Your task to perform on an android device: Open ESPN.com Image 0: 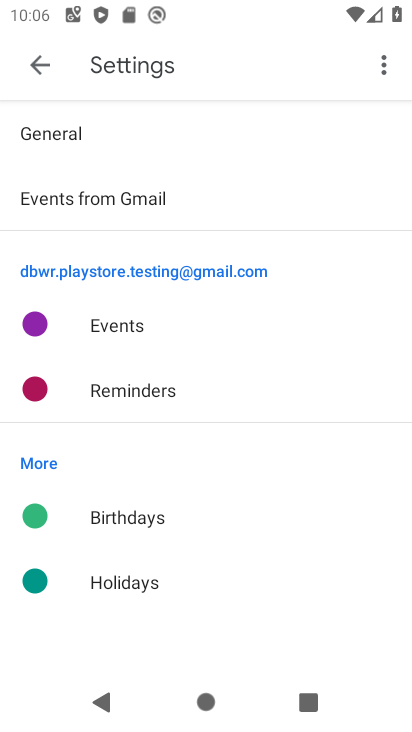
Step 0: press home button
Your task to perform on an android device: Open ESPN.com Image 1: 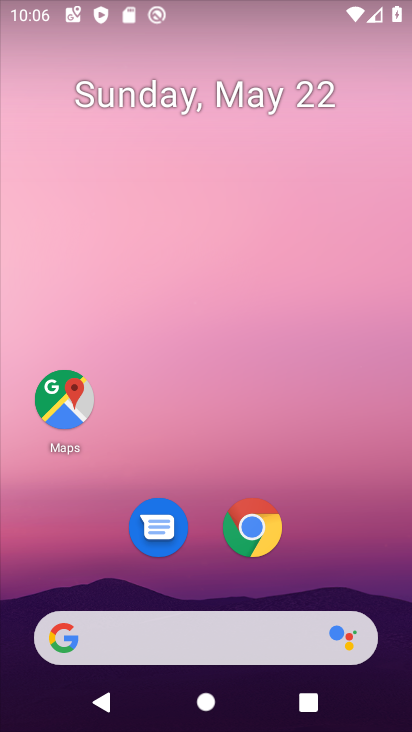
Step 1: drag from (349, 542) to (313, 74)
Your task to perform on an android device: Open ESPN.com Image 2: 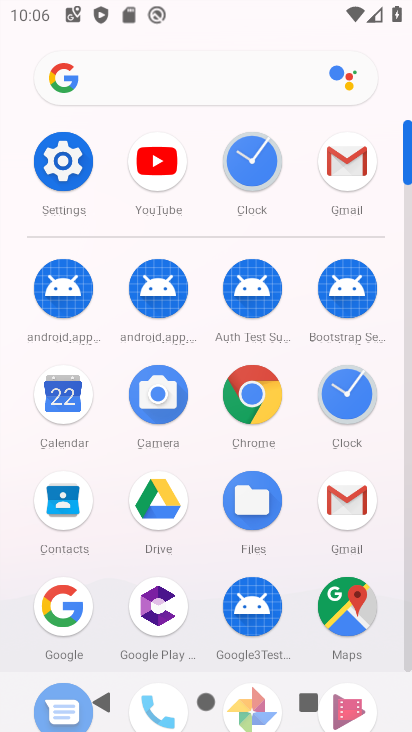
Step 2: click (409, 627)
Your task to perform on an android device: Open ESPN.com Image 3: 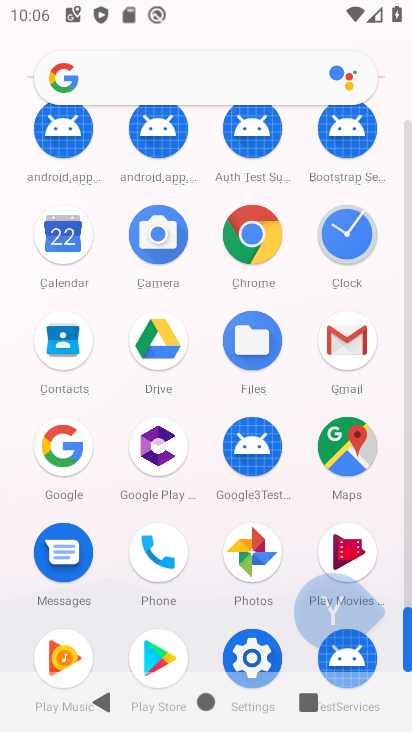
Step 3: click (409, 627)
Your task to perform on an android device: Open ESPN.com Image 4: 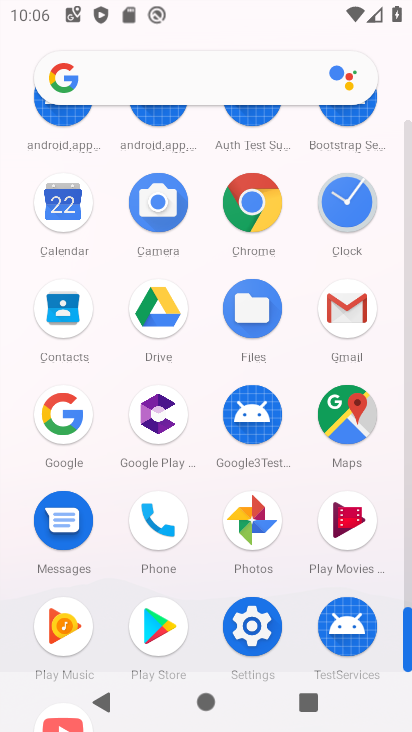
Step 4: click (409, 627)
Your task to perform on an android device: Open ESPN.com Image 5: 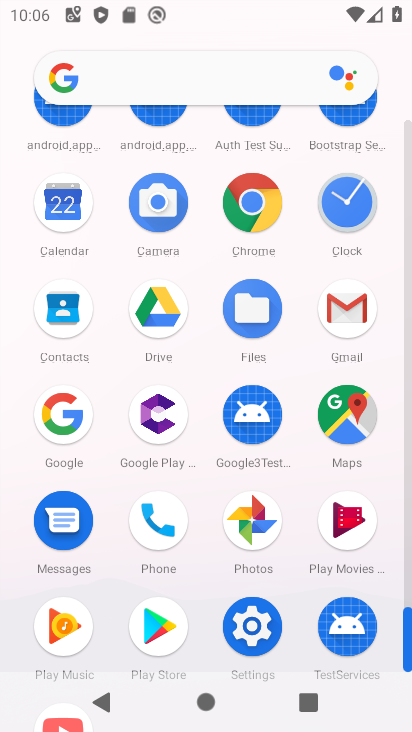
Step 5: click (409, 627)
Your task to perform on an android device: Open ESPN.com Image 6: 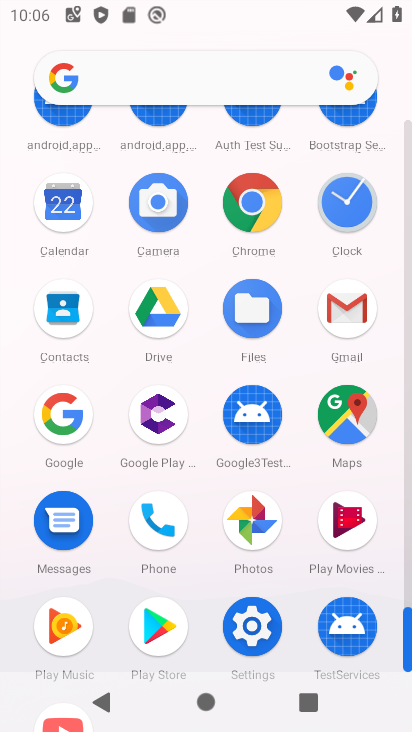
Step 6: click (406, 462)
Your task to perform on an android device: Open ESPN.com Image 7: 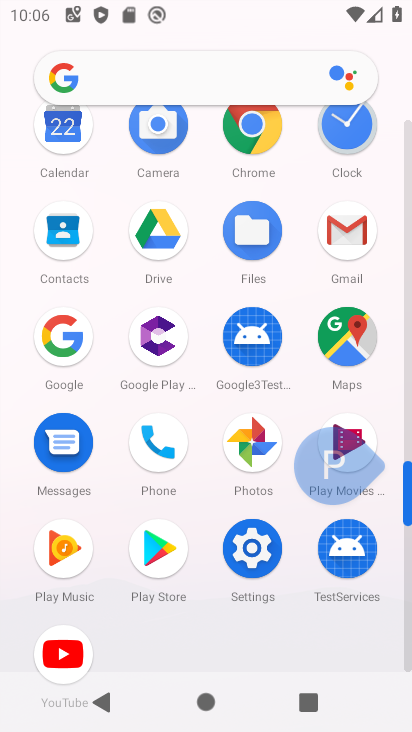
Step 7: click (406, 462)
Your task to perform on an android device: Open ESPN.com Image 8: 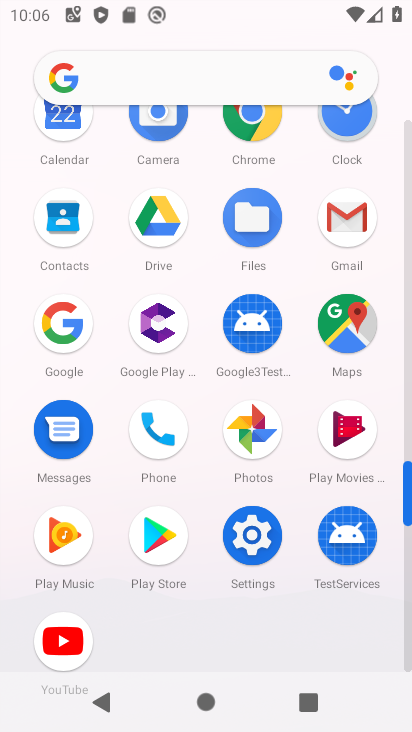
Step 8: click (407, 405)
Your task to perform on an android device: Open ESPN.com Image 9: 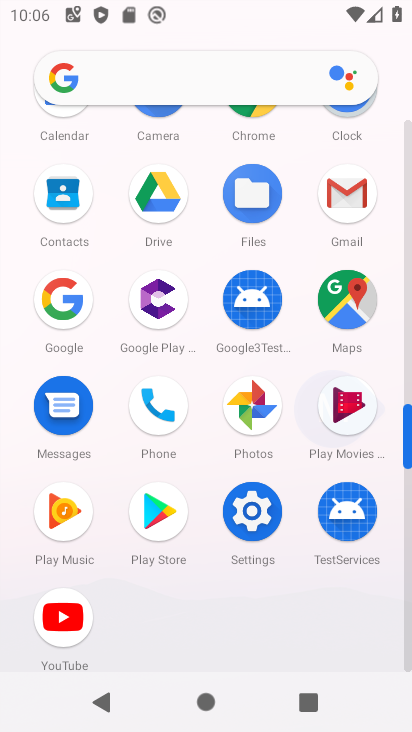
Step 9: click (407, 405)
Your task to perform on an android device: Open ESPN.com Image 10: 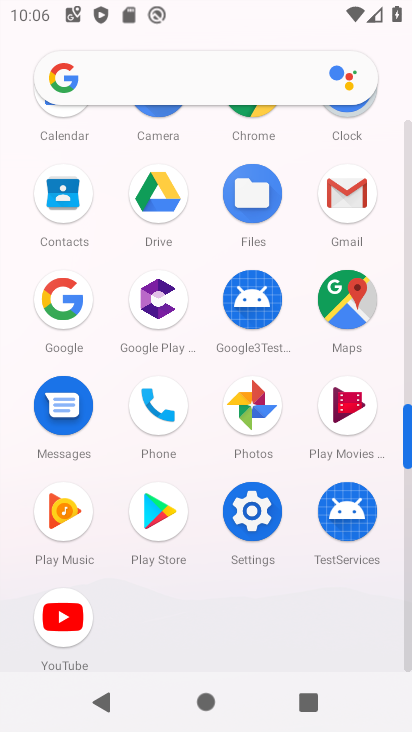
Step 10: click (402, 236)
Your task to perform on an android device: Open ESPN.com Image 11: 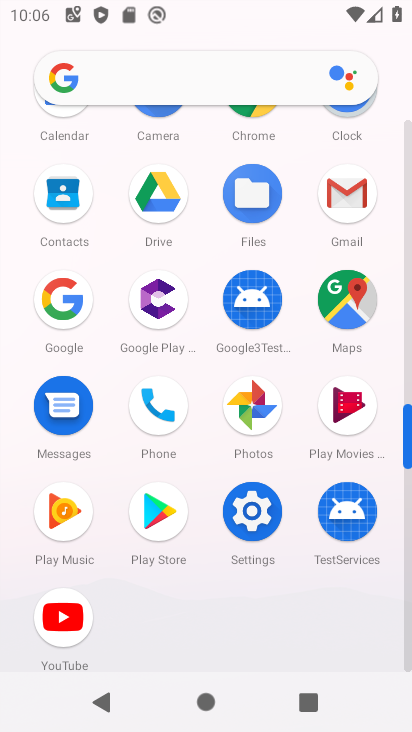
Step 11: click (246, 66)
Your task to perform on an android device: Open ESPN.com Image 12: 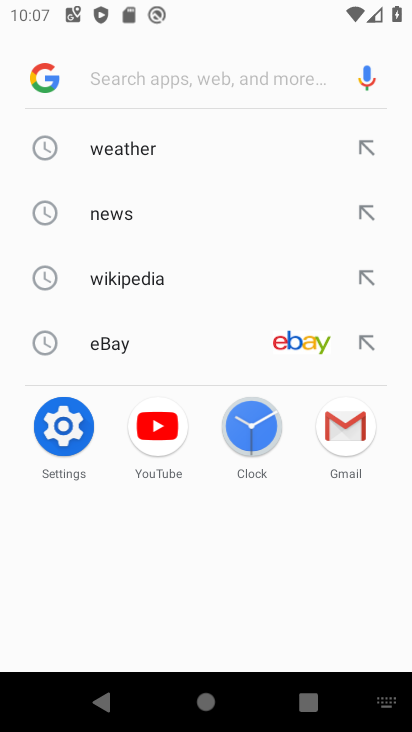
Step 12: type "espn"
Your task to perform on an android device: Open ESPN.com Image 13: 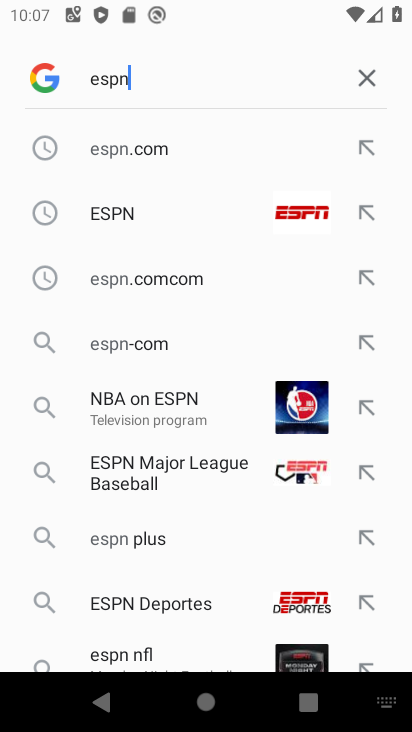
Step 13: click (121, 148)
Your task to perform on an android device: Open ESPN.com Image 14: 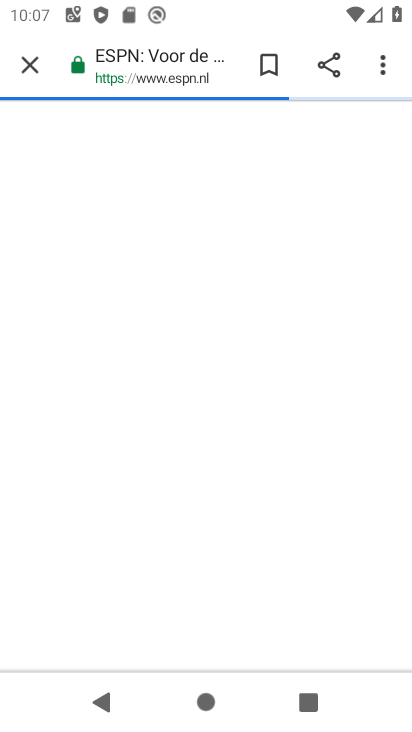
Step 14: task complete